Your task to perform on an android device: Is it going to rain today? Image 0: 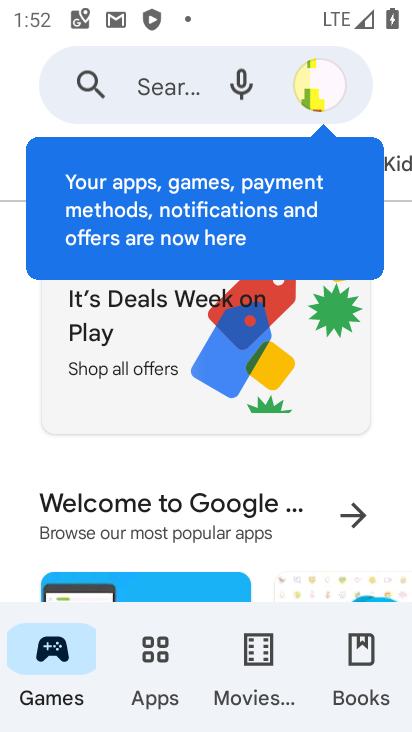
Step 0: press home button
Your task to perform on an android device: Is it going to rain today? Image 1: 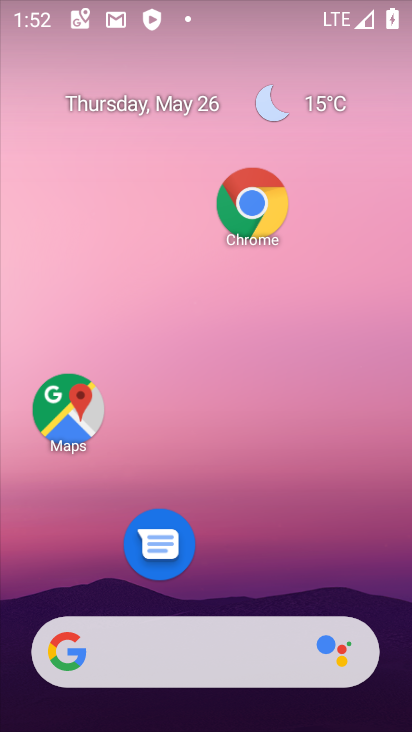
Step 1: click (230, 636)
Your task to perform on an android device: Is it going to rain today? Image 2: 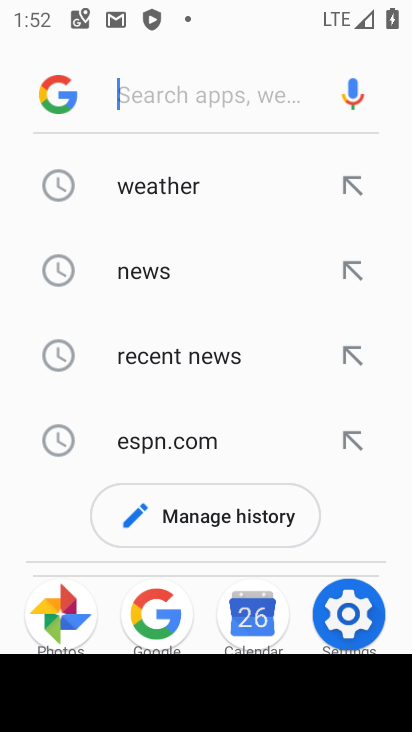
Step 2: type "Is it going to rain today?"
Your task to perform on an android device: Is it going to rain today? Image 3: 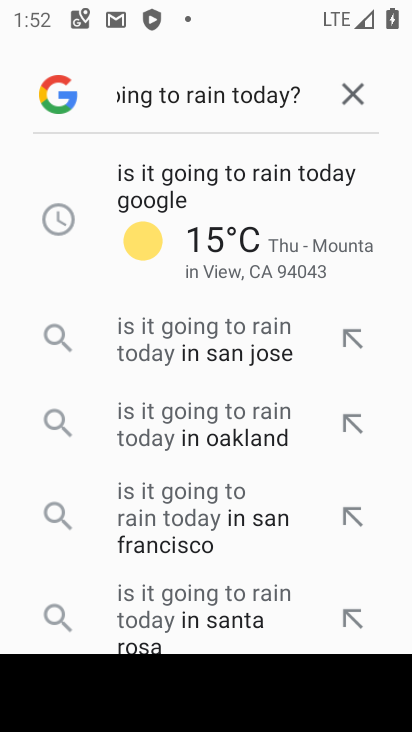
Step 3: click (257, 247)
Your task to perform on an android device: Is it going to rain today? Image 4: 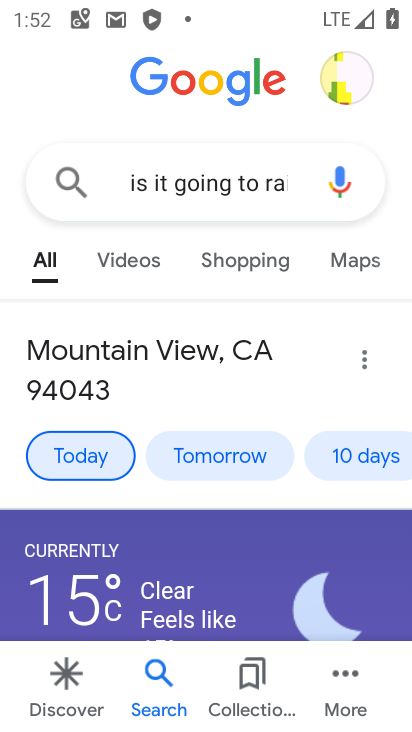
Step 4: task complete